Your task to perform on an android device: Go to wifi settings Image 0: 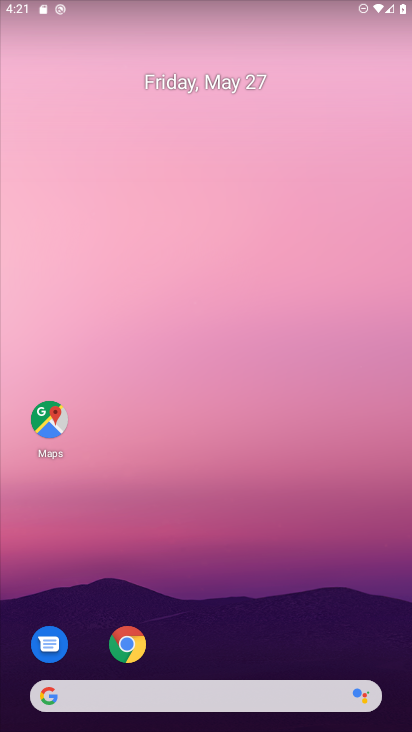
Step 0: drag from (285, 1) to (134, 686)
Your task to perform on an android device: Go to wifi settings Image 1: 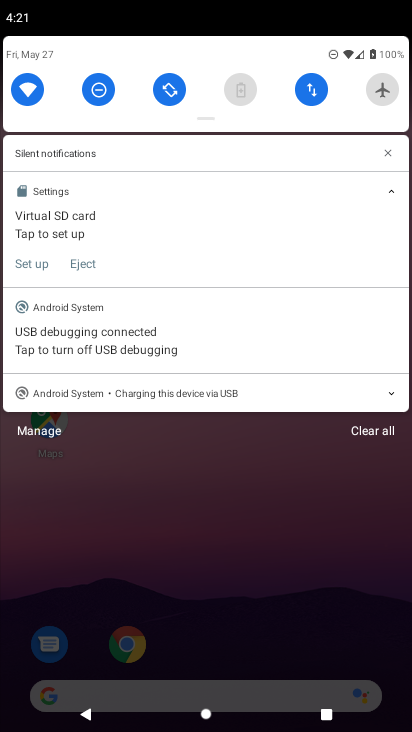
Step 1: click (24, 97)
Your task to perform on an android device: Go to wifi settings Image 2: 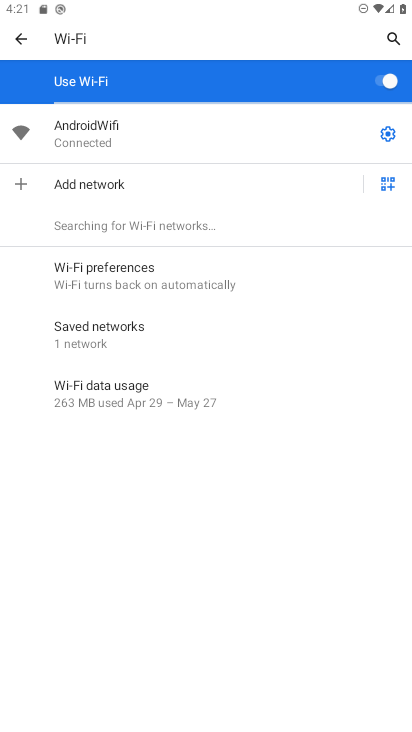
Step 2: task complete